Your task to perform on an android device: What's the weather going to be this weekend? Image 0: 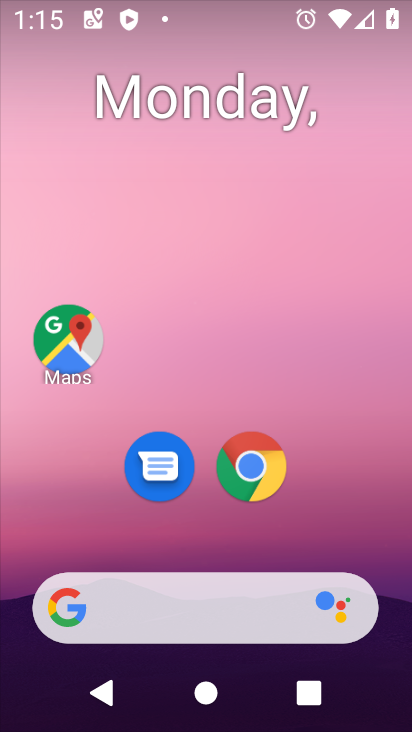
Step 0: drag from (396, 618) to (348, 349)
Your task to perform on an android device: What's the weather going to be this weekend? Image 1: 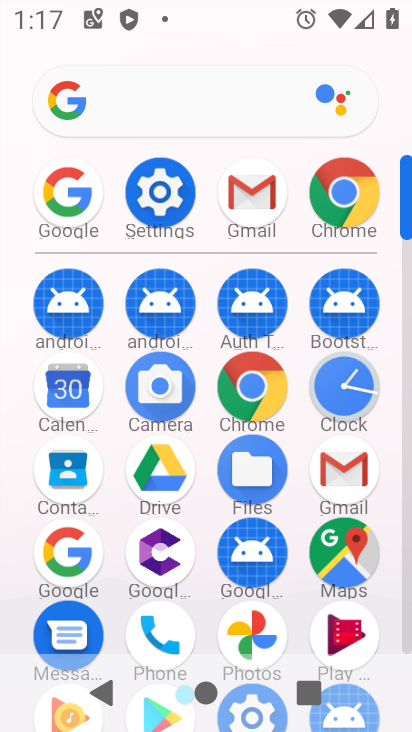
Step 1: click (68, 540)
Your task to perform on an android device: What's the weather going to be this weekend? Image 2: 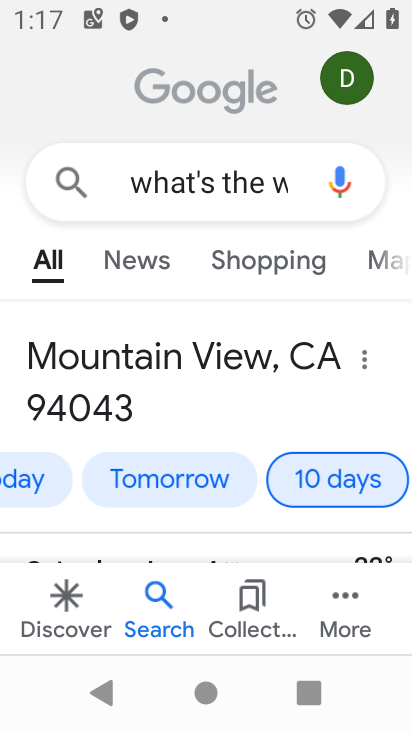
Step 2: press back button
Your task to perform on an android device: What's the weather going to be this weekend? Image 3: 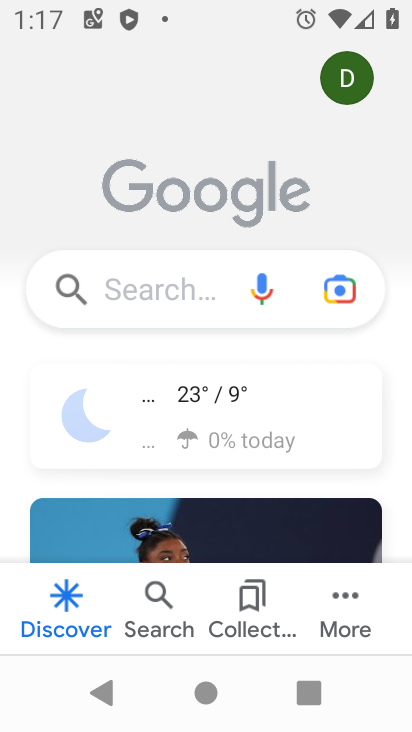
Step 3: click (148, 297)
Your task to perform on an android device: What's the weather going to be this weekend? Image 4: 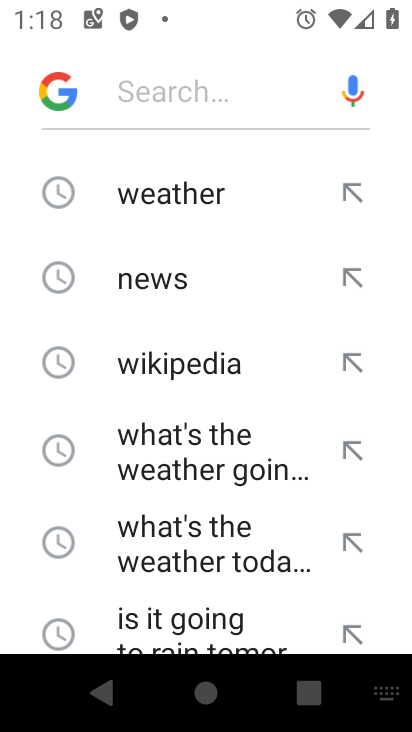
Step 4: click (201, 450)
Your task to perform on an android device: What's the weather going to be this weekend? Image 5: 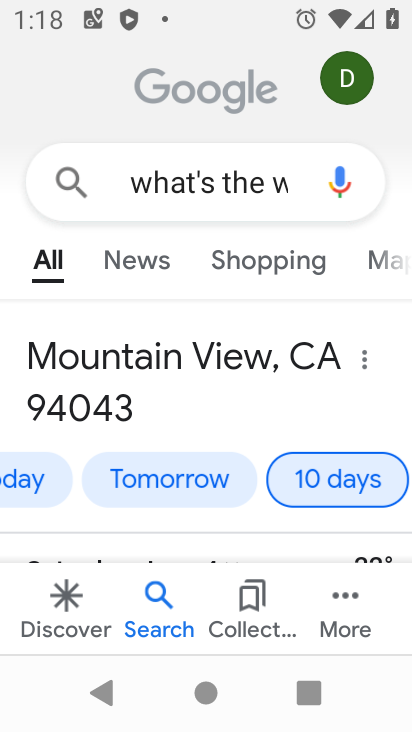
Step 5: task complete